Your task to perform on an android device: turn on data saver in the chrome app Image 0: 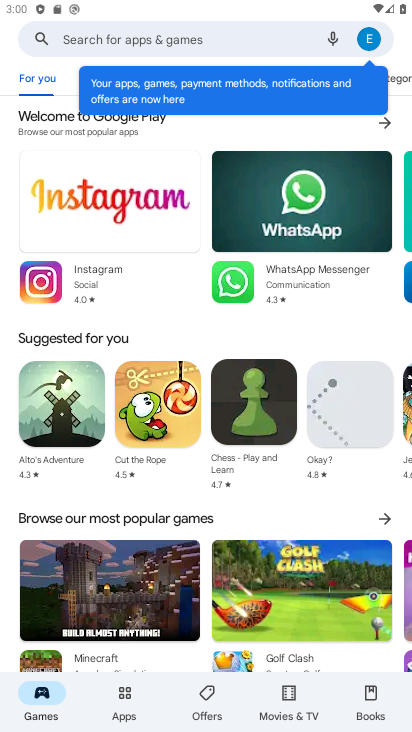
Step 0: press home button
Your task to perform on an android device: turn on data saver in the chrome app Image 1: 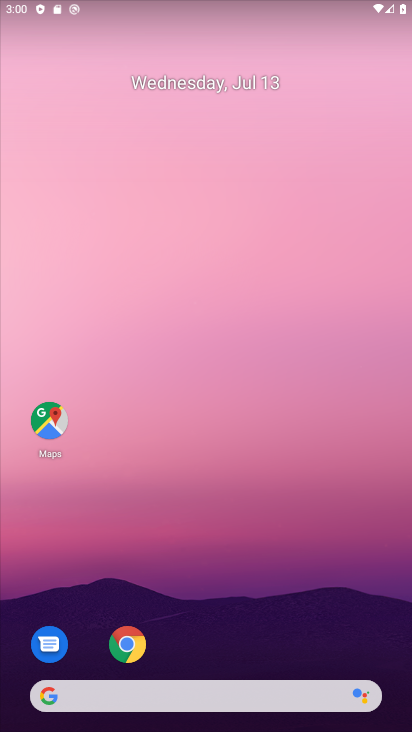
Step 1: click (126, 642)
Your task to perform on an android device: turn on data saver in the chrome app Image 2: 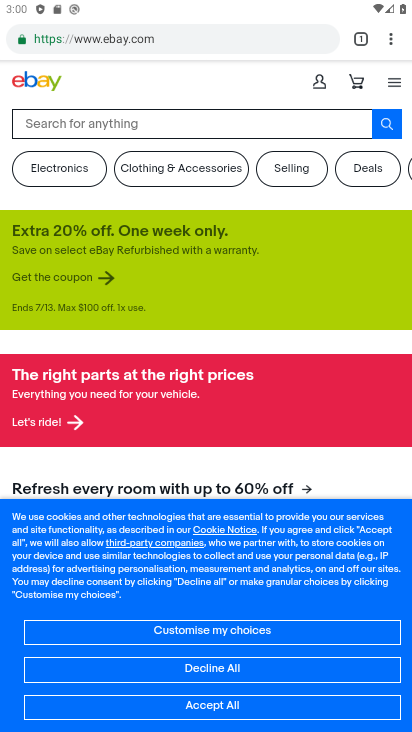
Step 2: click (391, 38)
Your task to perform on an android device: turn on data saver in the chrome app Image 3: 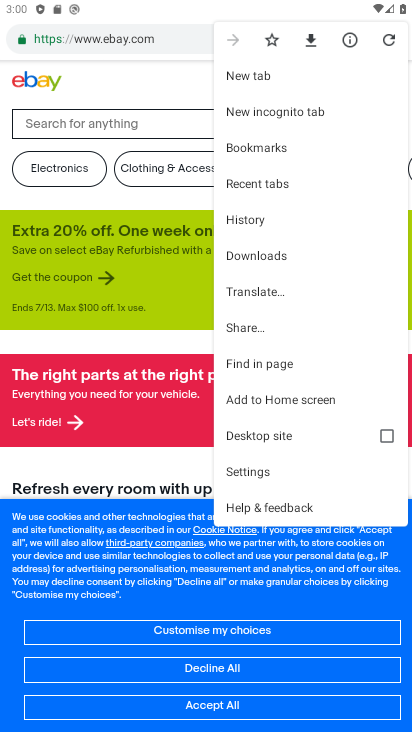
Step 3: click (255, 471)
Your task to perform on an android device: turn on data saver in the chrome app Image 4: 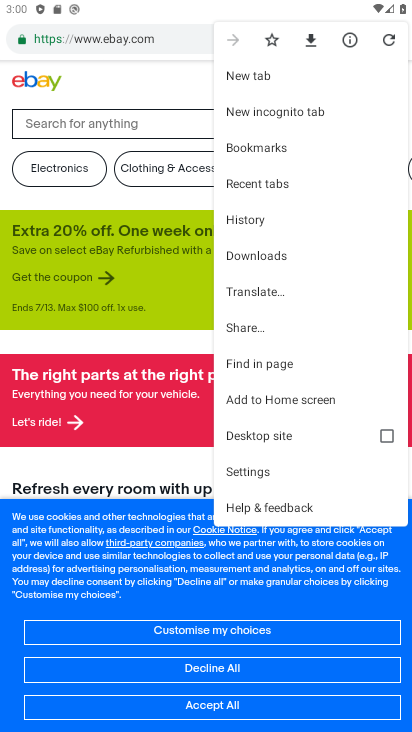
Step 4: click (255, 471)
Your task to perform on an android device: turn on data saver in the chrome app Image 5: 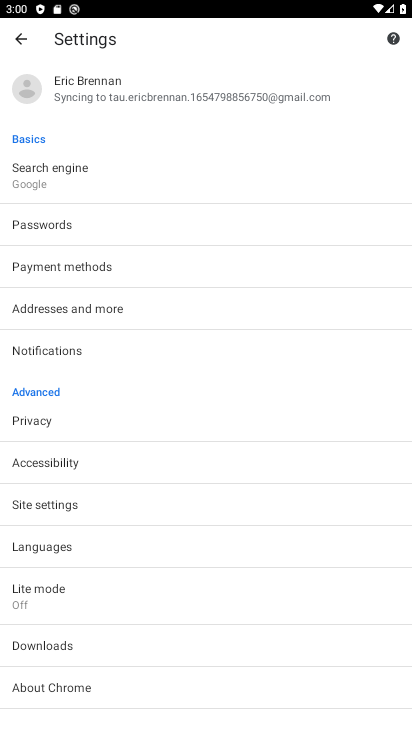
Step 5: drag from (90, 414) to (115, 338)
Your task to perform on an android device: turn on data saver in the chrome app Image 6: 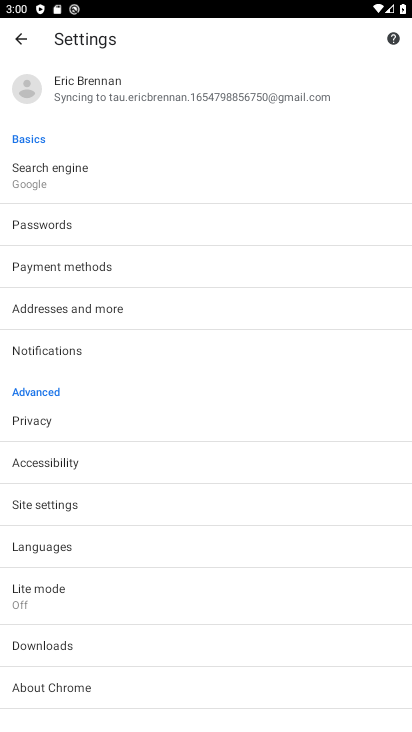
Step 6: click (61, 585)
Your task to perform on an android device: turn on data saver in the chrome app Image 7: 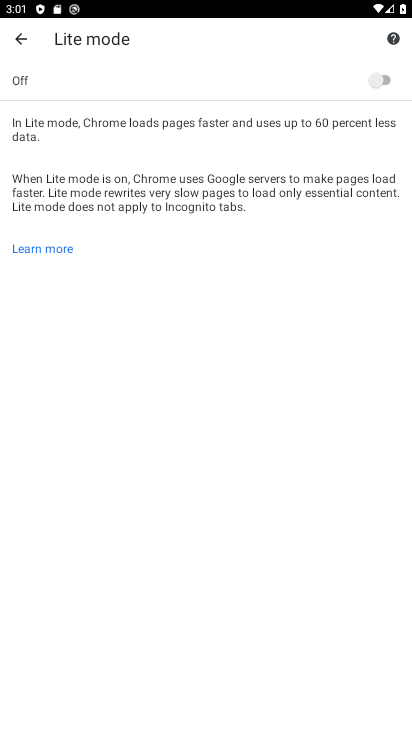
Step 7: click (385, 82)
Your task to perform on an android device: turn on data saver in the chrome app Image 8: 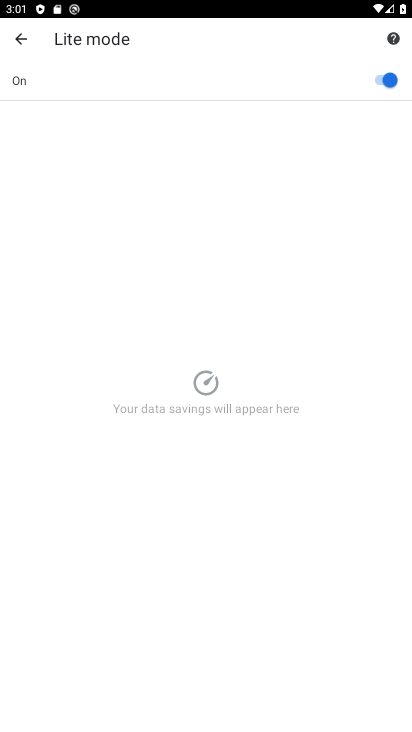
Step 8: task complete